Your task to perform on an android device: Go to sound settings Image 0: 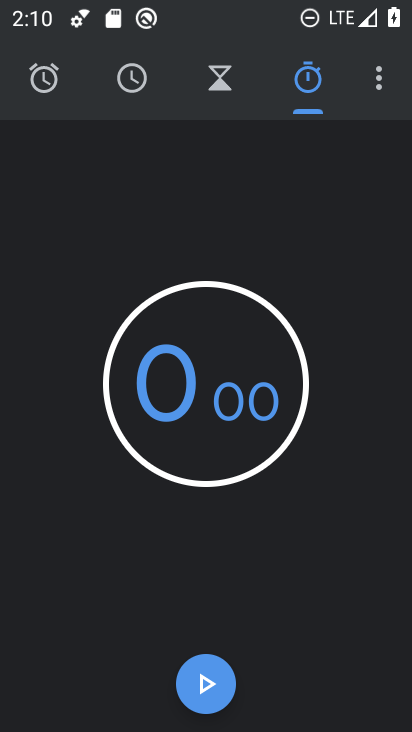
Step 0: press home button
Your task to perform on an android device: Go to sound settings Image 1: 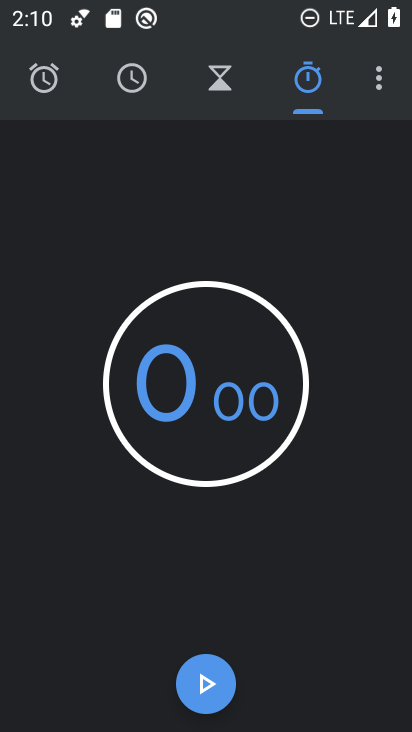
Step 1: press home button
Your task to perform on an android device: Go to sound settings Image 2: 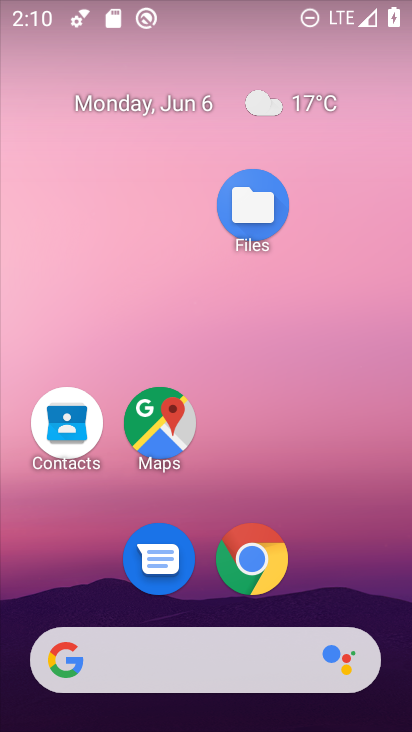
Step 2: drag from (266, 676) to (318, 229)
Your task to perform on an android device: Go to sound settings Image 3: 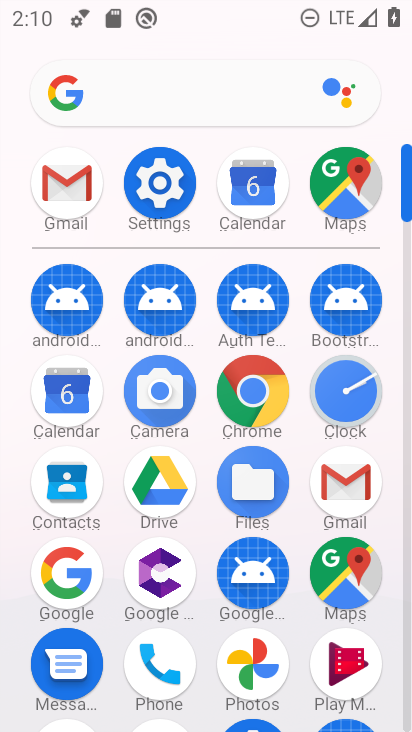
Step 3: click (170, 197)
Your task to perform on an android device: Go to sound settings Image 4: 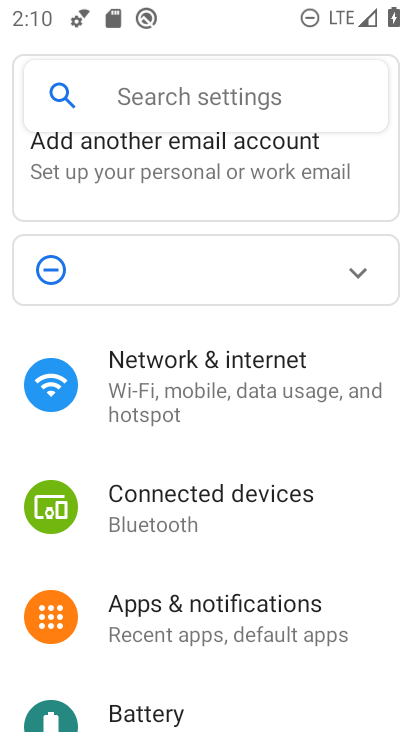
Step 4: drag from (225, 542) to (285, 271)
Your task to perform on an android device: Go to sound settings Image 5: 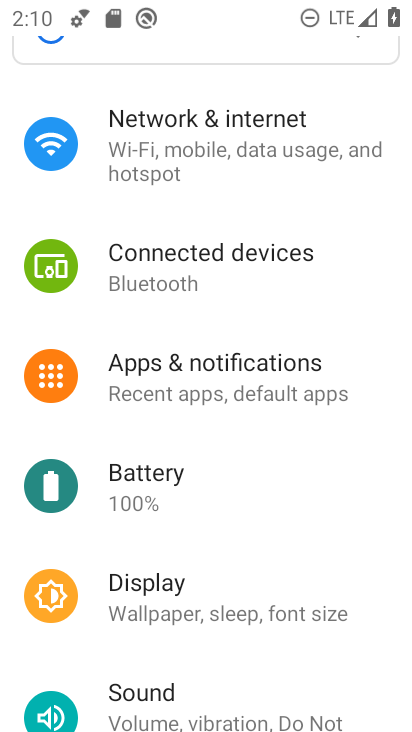
Step 5: drag from (237, 535) to (285, 312)
Your task to perform on an android device: Go to sound settings Image 6: 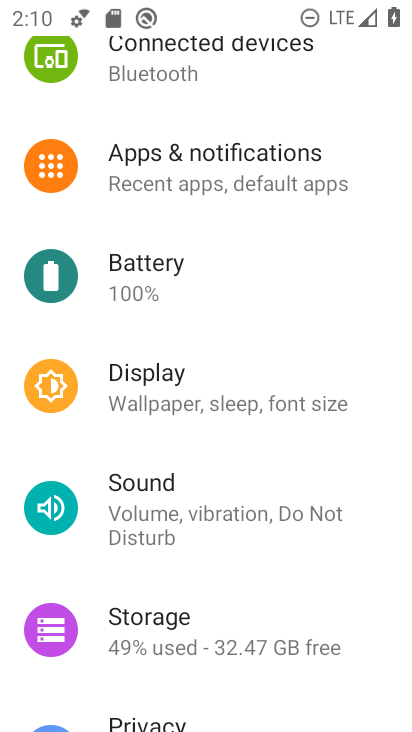
Step 6: click (254, 501)
Your task to perform on an android device: Go to sound settings Image 7: 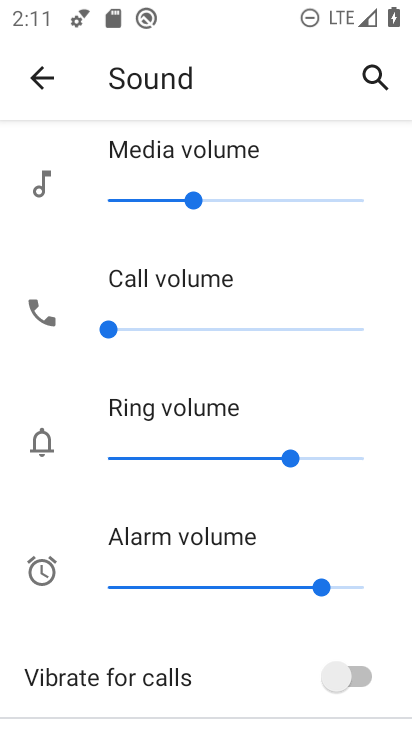
Step 7: task complete